Your task to perform on an android device: open app "Microsoft Excel" (install if not already installed) Image 0: 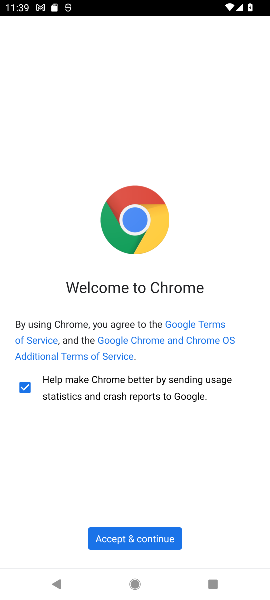
Step 0: press home button
Your task to perform on an android device: open app "Microsoft Excel" (install if not already installed) Image 1: 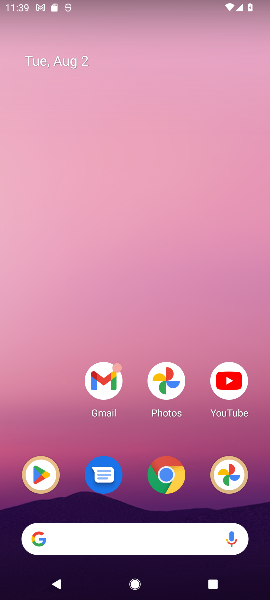
Step 1: click (36, 471)
Your task to perform on an android device: open app "Microsoft Excel" (install if not already installed) Image 2: 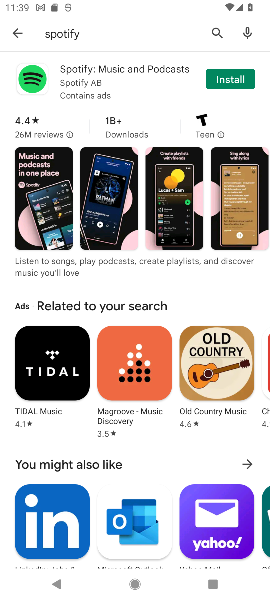
Step 2: click (220, 31)
Your task to perform on an android device: open app "Microsoft Excel" (install if not already installed) Image 3: 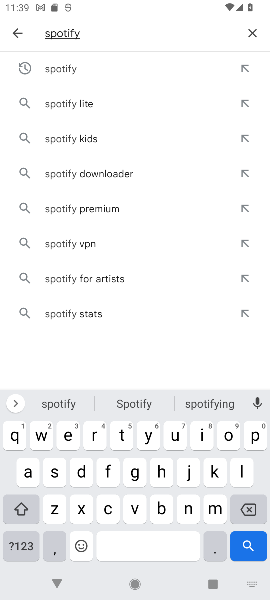
Step 3: click (253, 30)
Your task to perform on an android device: open app "Microsoft Excel" (install if not already installed) Image 4: 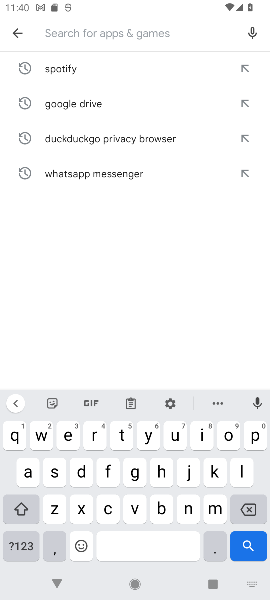
Step 4: type "Microsoft Excel"
Your task to perform on an android device: open app "Microsoft Excel" (install if not already installed) Image 5: 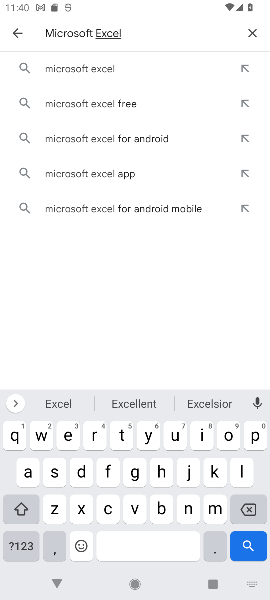
Step 5: click (84, 63)
Your task to perform on an android device: open app "Microsoft Excel" (install if not already installed) Image 6: 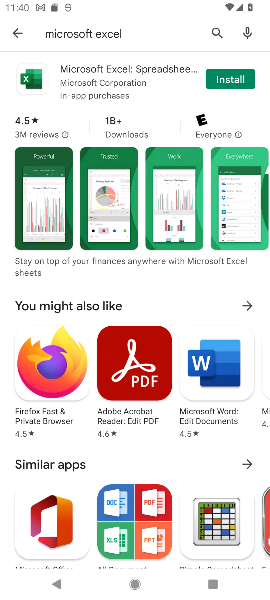
Step 6: task complete